Your task to perform on an android device: Go to calendar. Show me events next week Image 0: 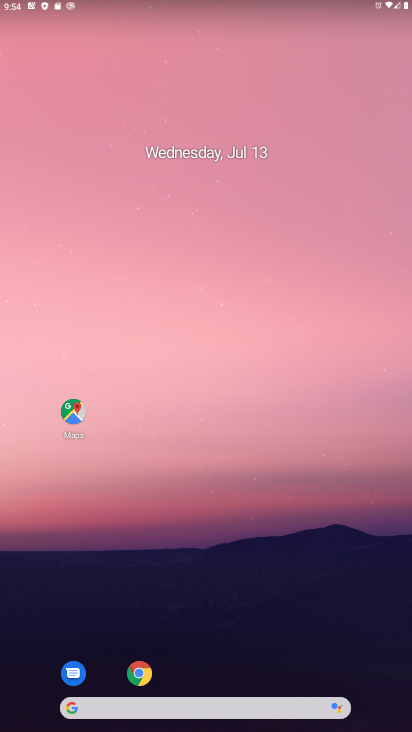
Step 0: click (191, 152)
Your task to perform on an android device: Go to calendar. Show me events next week Image 1: 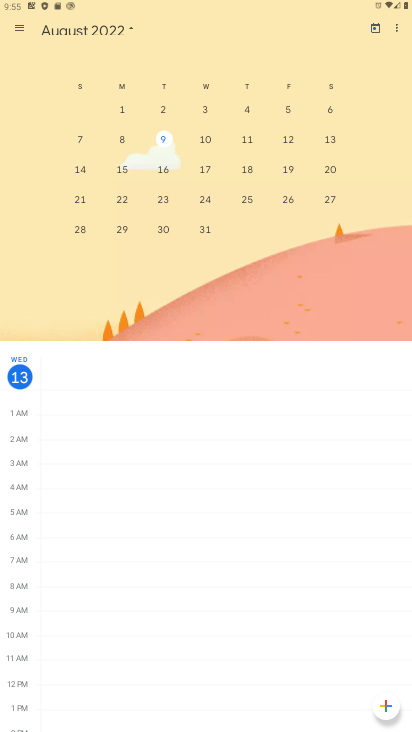
Step 1: click (22, 25)
Your task to perform on an android device: Go to calendar. Show me events next week Image 2: 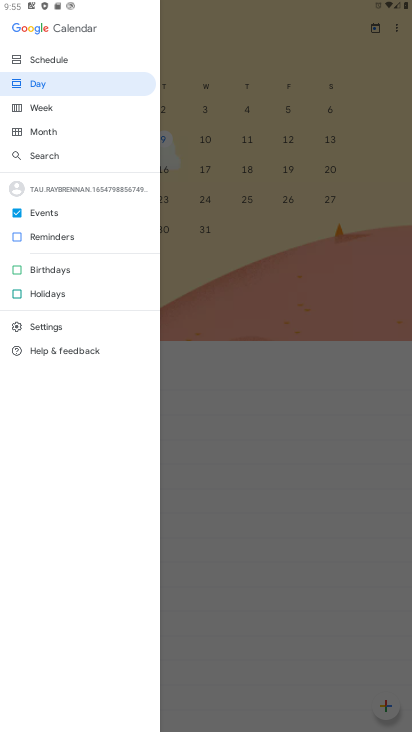
Step 2: click (36, 115)
Your task to perform on an android device: Go to calendar. Show me events next week Image 3: 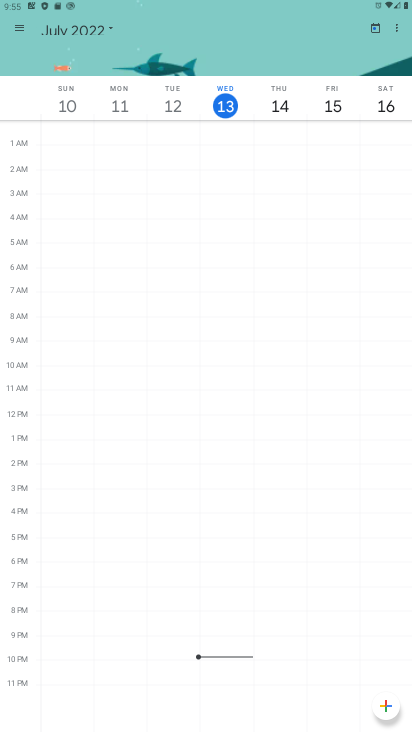
Step 3: click (89, 26)
Your task to perform on an android device: Go to calendar. Show me events next week Image 4: 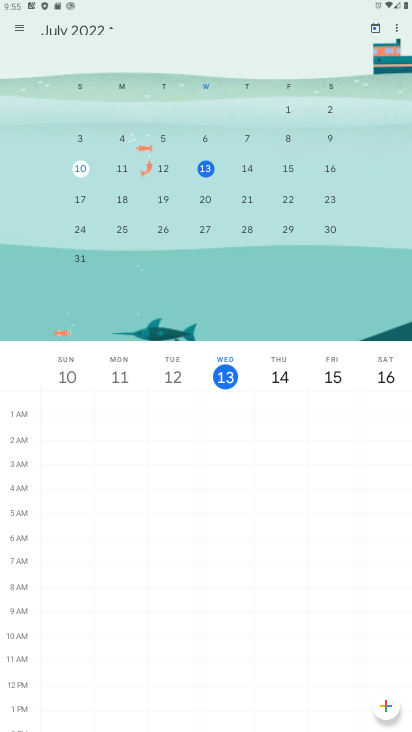
Step 4: click (208, 206)
Your task to perform on an android device: Go to calendar. Show me events next week Image 5: 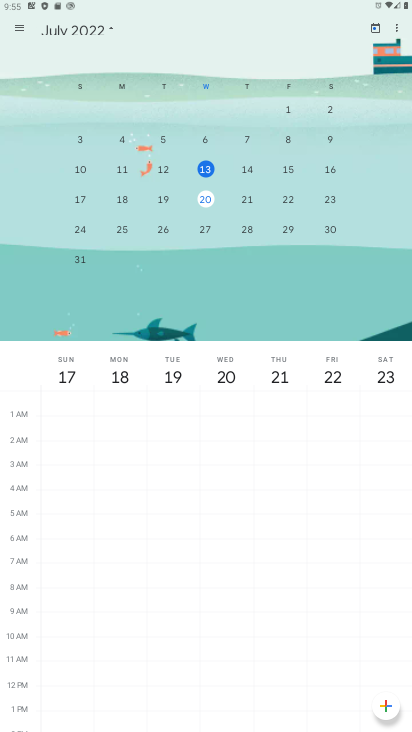
Step 5: task complete